Your task to perform on an android device: Open network settings Image 0: 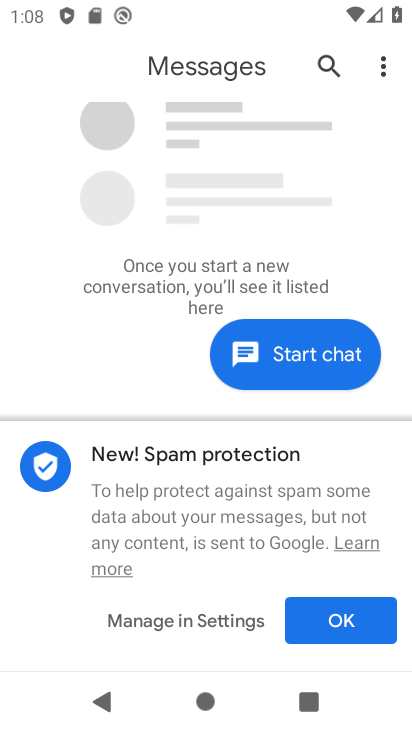
Step 0: press home button
Your task to perform on an android device: Open network settings Image 1: 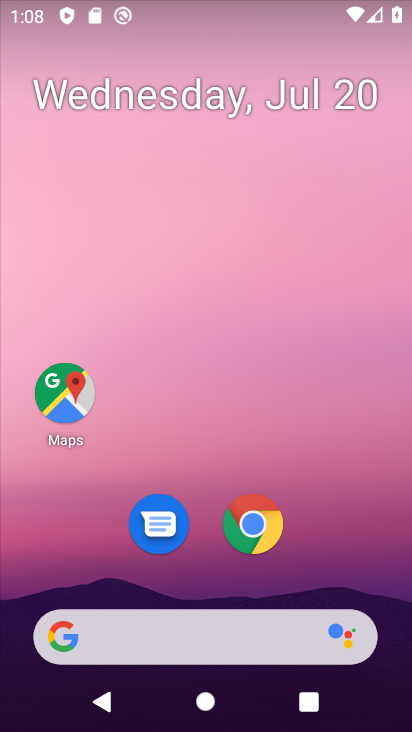
Step 1: drag from (349, 532) to (327, 47)
Your task to perform on an android device: Open network settings Image 2: 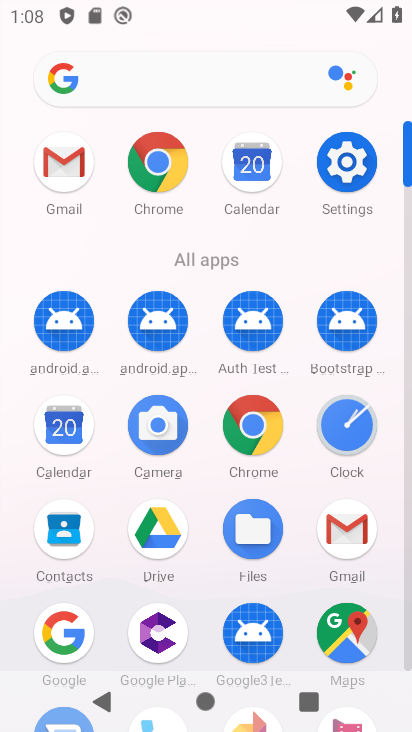
Step 2: click (347, 167)
Your task to perform on an android device: Open network settings Image 3: 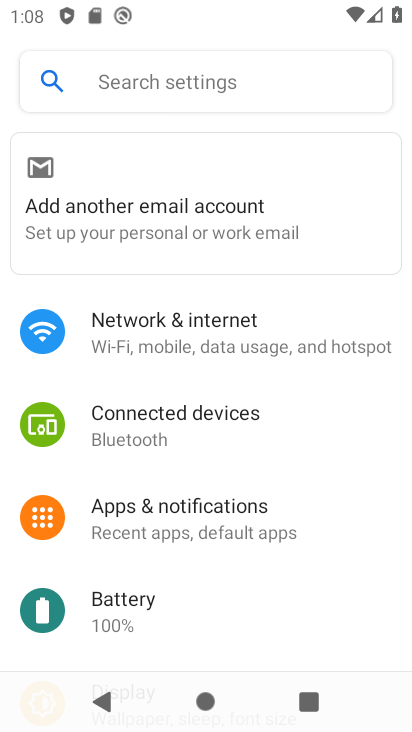
Step 3: click (225, 326)
Your task to perform on an android device: Open network settings Image 4: 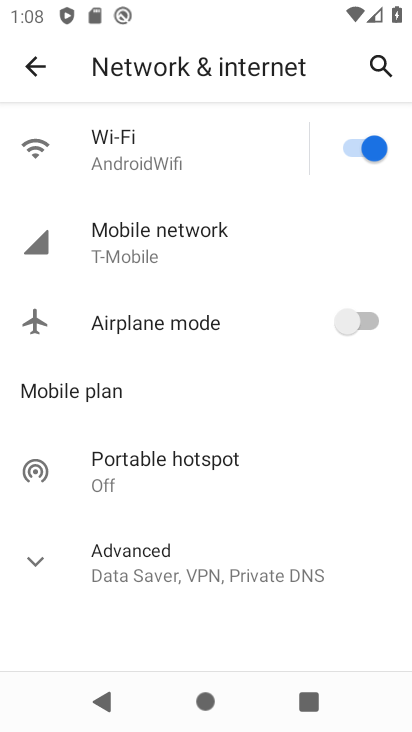
Step 4: task complete